Your task to perform on an android device: What's on my calendar today? Image 0: 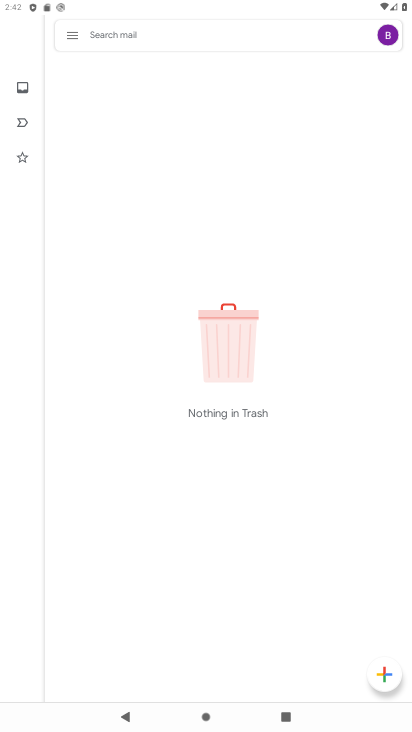
Step 0: press home button
Your task to perform on an android device: What's on my calendar today? Image 1: 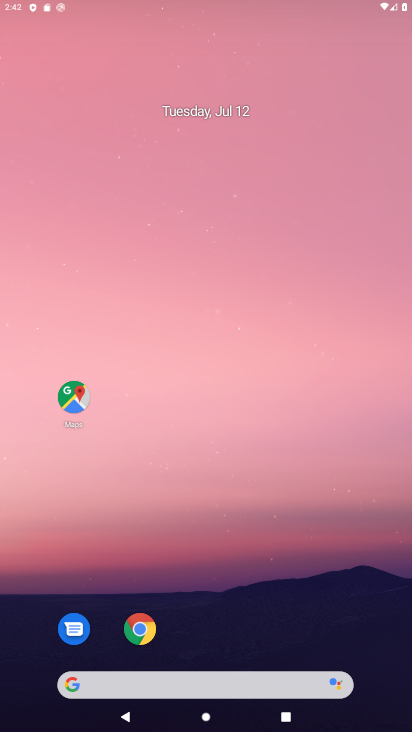
Step 1: drag from (239, 637) to (307, 83)
Your task to perform on an android device: What's on my calendar today? Image 2: 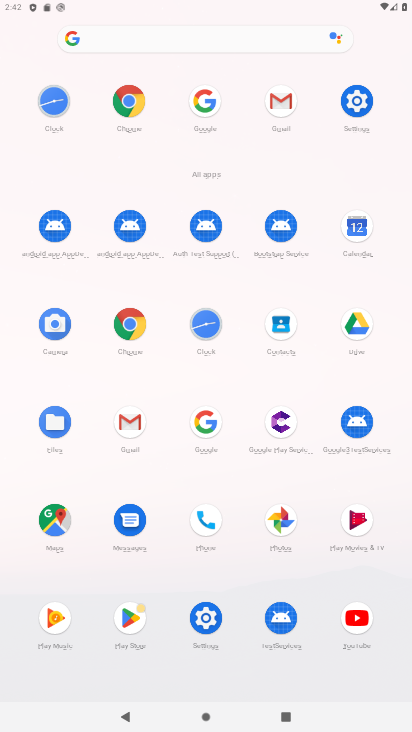
Step 2: click (355, 228)
Your task to perform on an android device: What's on my calendar today? Image 3: 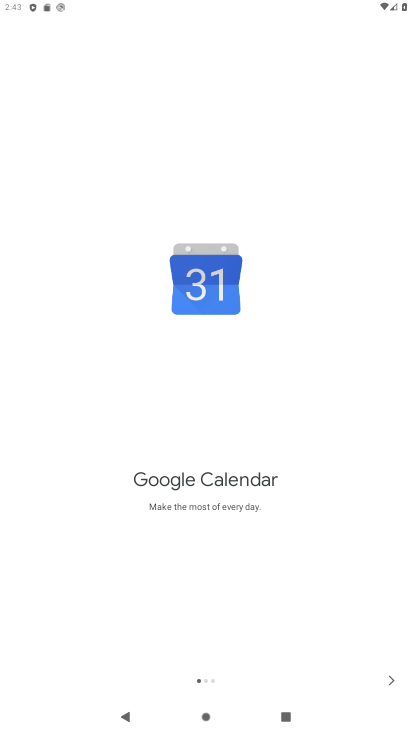
Step 3: click (390, 676)
Your task to perform on an android device: What's on my calendar today? Image 4: 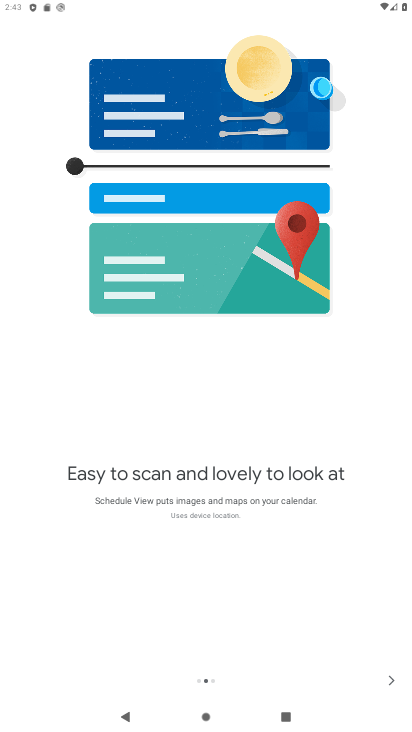
Step 4: click (393, 681)
Your task to perform on an android device: What's on my calendar today? Image 5: 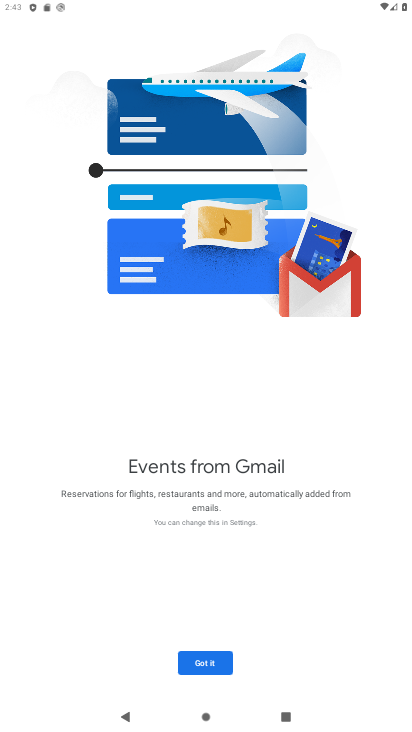
Step 5: click (186, 666)
Your task to perform on an android device: What's on my calendar today? Image 6: 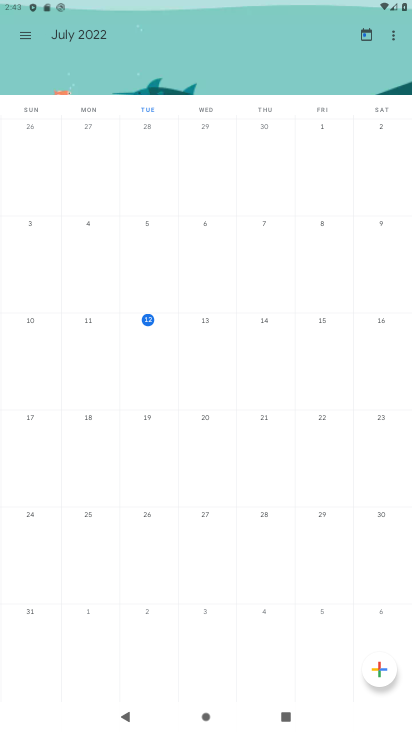
Step 6: click (145, 320)
Your task to perform on an android device: What's on my calendar today? Image 7: 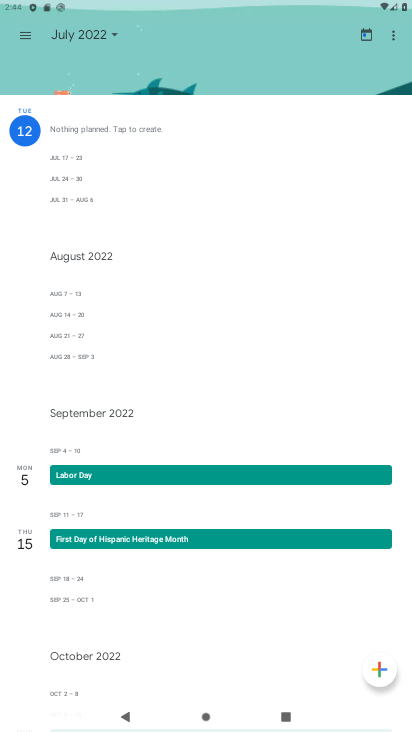
Step 7: task complete